Your task to perform on an android device: Play the last video I watched on Youtube Image 0: 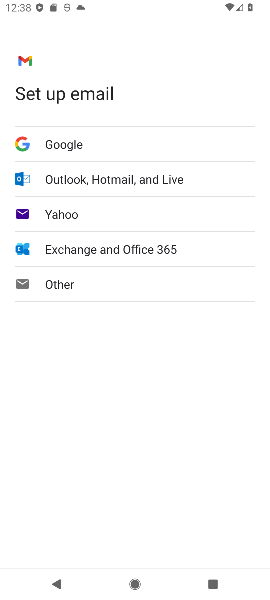
Step 0: press home button
Your task to perform on an android device: Play the last video I watched on Youtube Image 1: 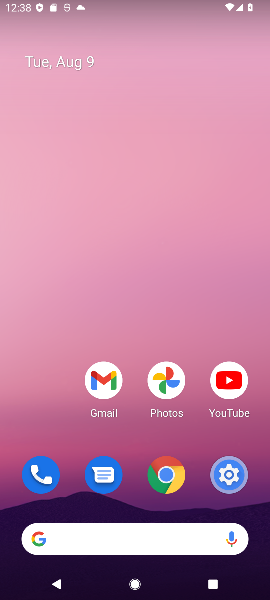
Step 1: click (230, 384)
Your task to perform on an android device: Play the last video I watched on Youtube Image 2: 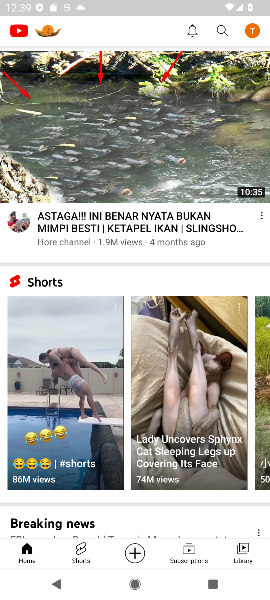
Step 2: click (239, 547)
Your task to perform on an android device: Play the last video I watched on Youtube Image 3: 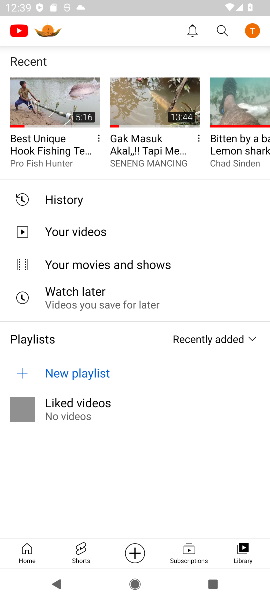
Step 3: click (37, 110)
Your task to perform on an android device: Play the last video I watched on Youtube Image 4: 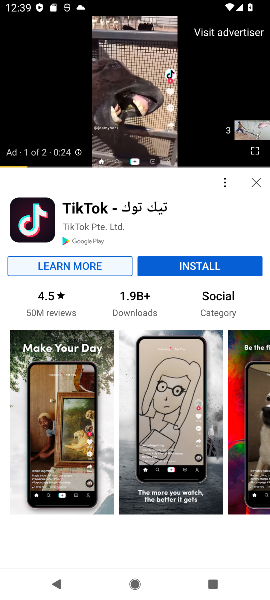
Step 4: task complete